Your task to perform on an android device: Do I have any events this weekend? Image 0: 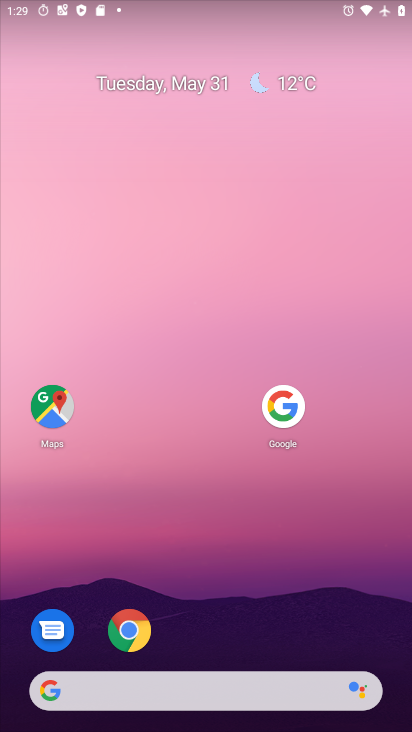
Step 0: press home button
Your task to perform on an android device: Do I have any events this weekend? Image 1: 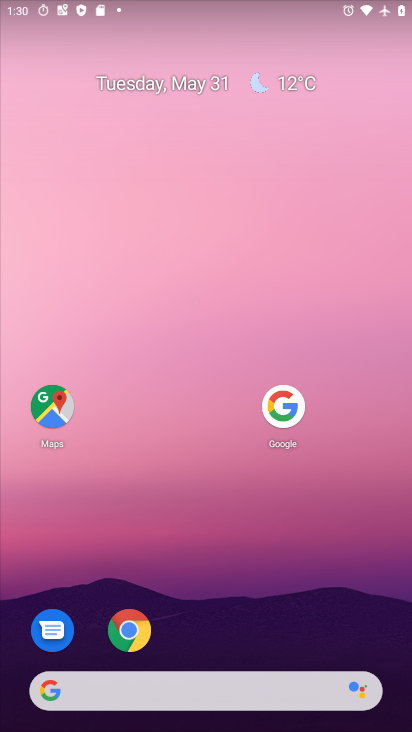
Step 1: drag from (140, 689) to (298, 163)
Your task to perform on an android device: Do I have any events this weekend? Image 2: 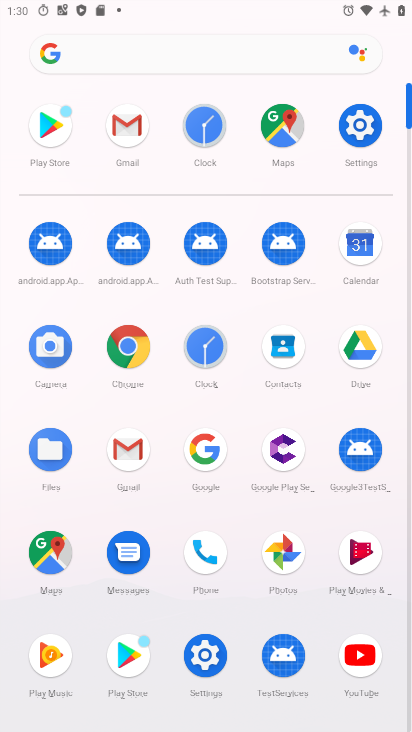
Step 2: click (356, 258)
Your task to perform on an android device: Do I have any events this weekend? Image 3: 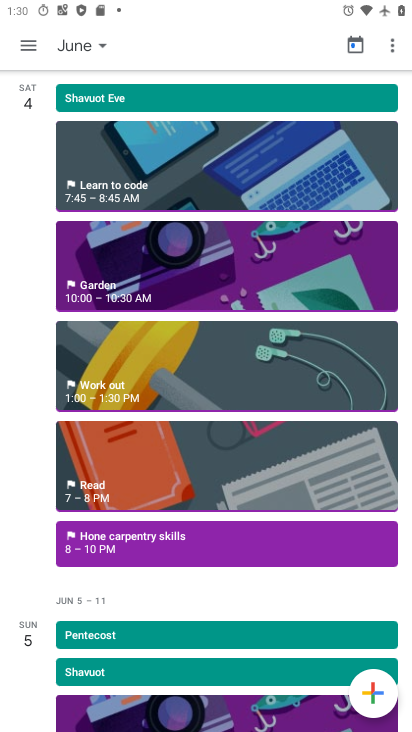
Step 3: task complete